Your task to perform on an android device: What's on my calendar today? Image 0: 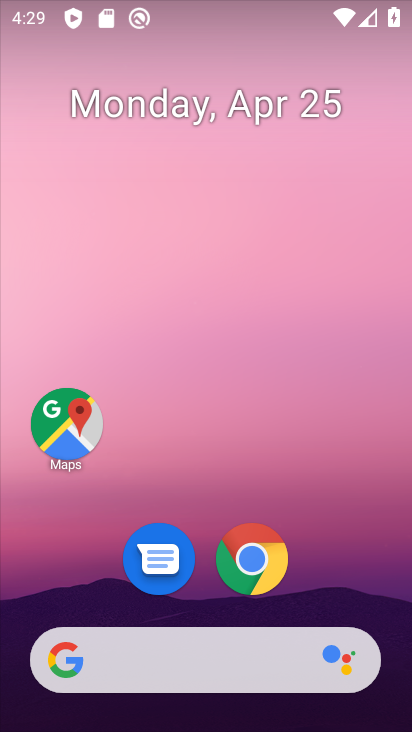
Step 0: click (217, 111)
Your task to perform on an android device: What's on my calendar today? Image 1: 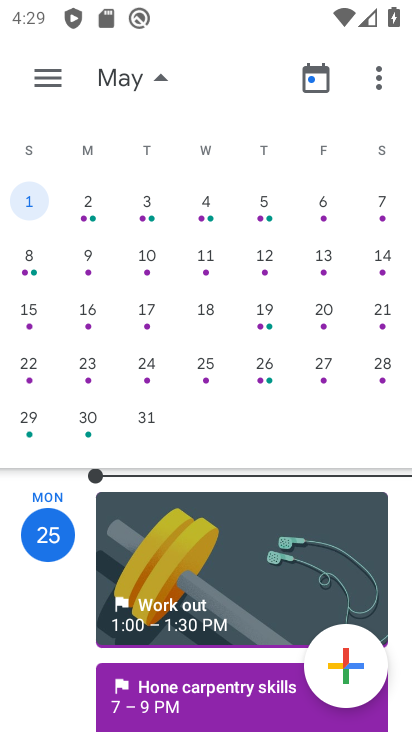
Step 1: task complete